Your task to perform on an android device: Do I have any events today? Image 0: 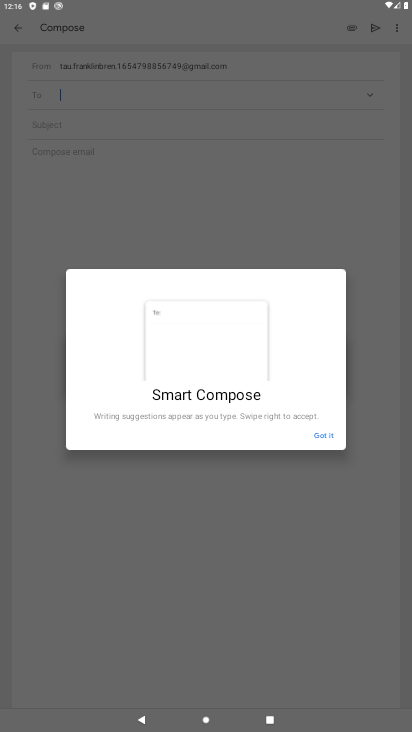
Step 0: drag from (203, 600) to (261, 148)
Your task to perform on an android device: Do I have any events today? Image 1: 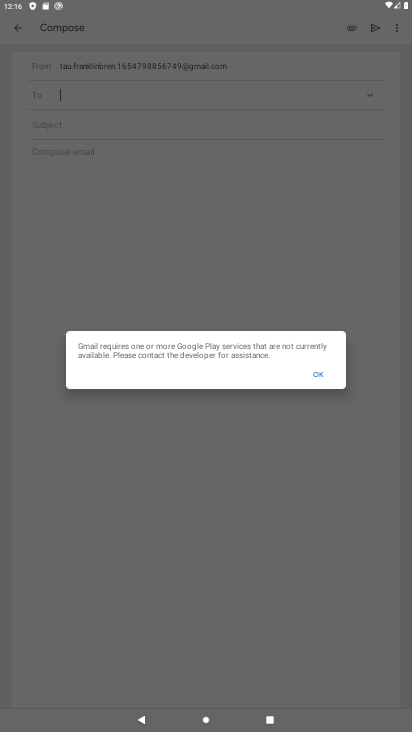
Step 1: press home button
Your task to perform on an android device: Do I have any events today? Image 2: 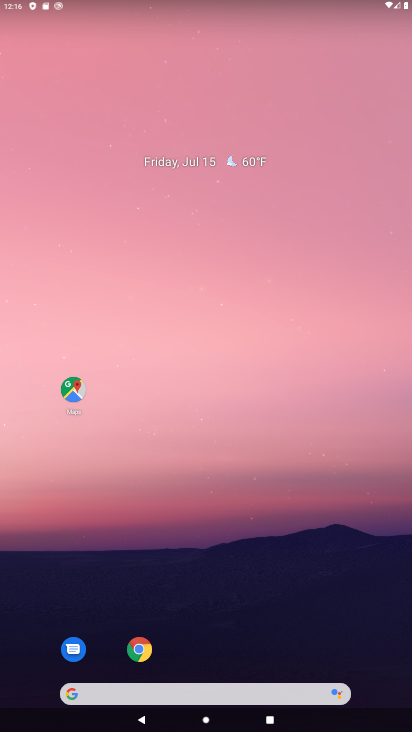
Step 2: drag from (207, 673) to (222, 248)
Your task to perform on an android device: Do I have any events today? Image 3: 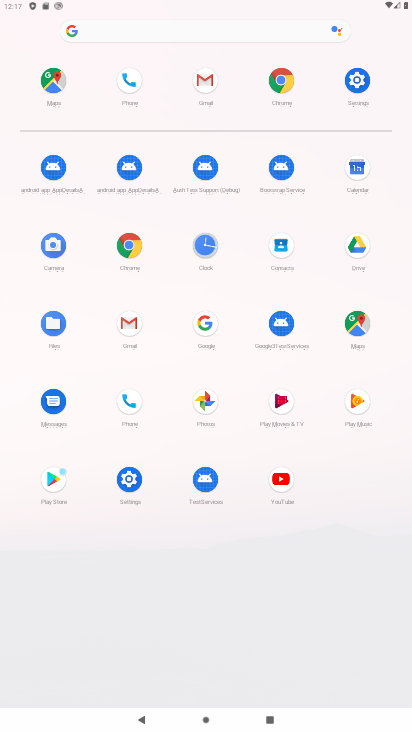
Step 3: click (358, 166)
Your task to perform on an android device: Do I have any events today? Image 4: 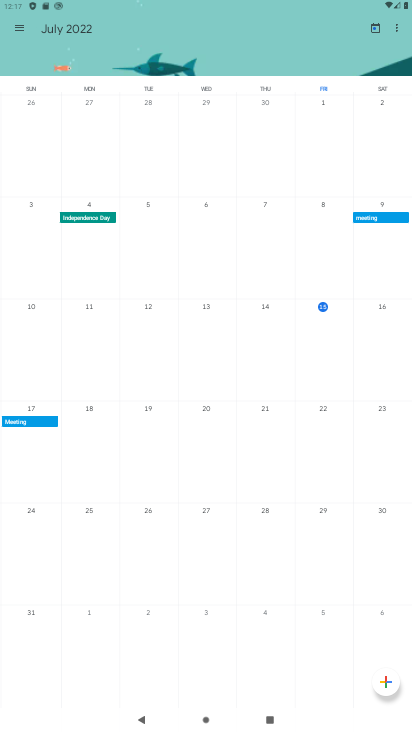
Step 4: click (325, 324)
Your task to perform on an android device: Do I have any events today? Image 5: 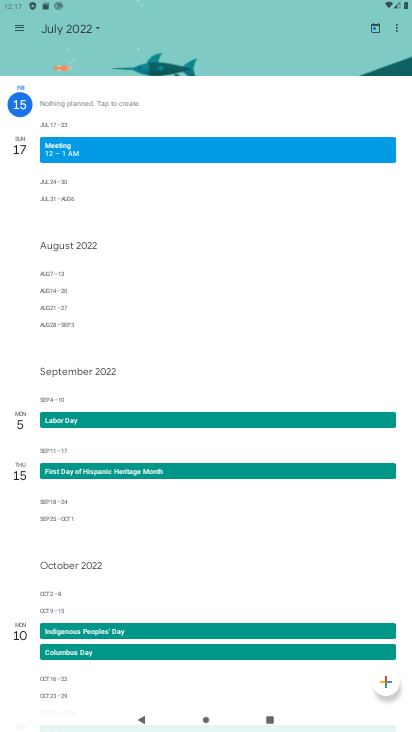
Step 5: task complete